Your task to perform on an android device: turn on the 12-hour format for clock Image 0: 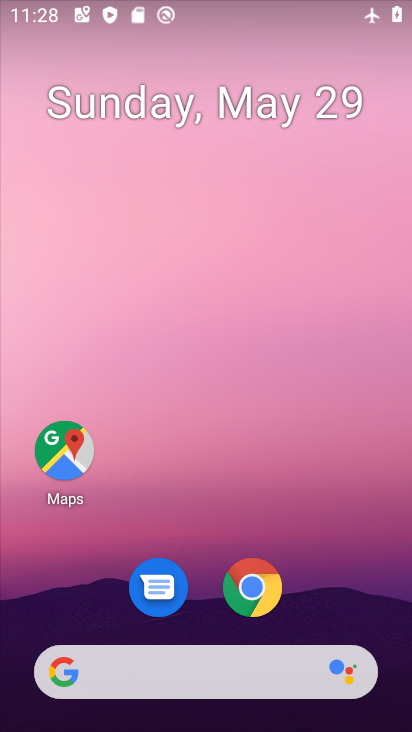
Step 0: drag from (346, 530) to (283, 176)
Your task to perform on an android device: turn on the 12-hour format for clock Image 1: 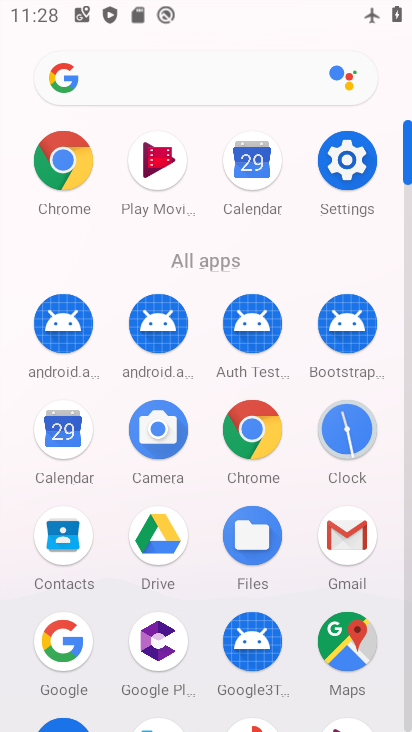
Step 1: click (344, 429)
Your task to perform on an android device: turn on the 12-hour format for clock Image 2: 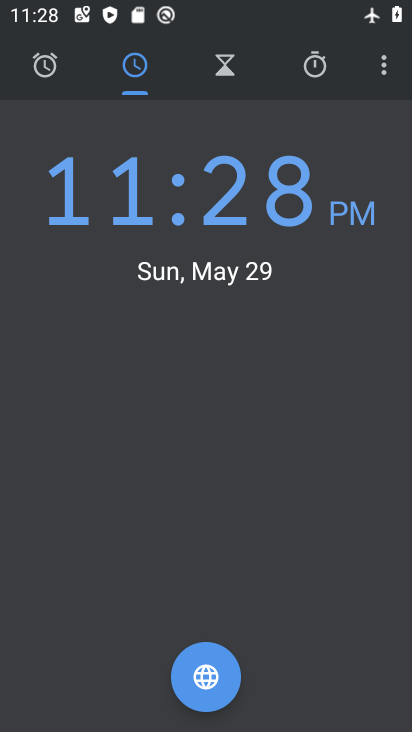
Step 2: click (388, 73)
Your task to perform on an android device: turn on the 12-hour format for clock Image 3: 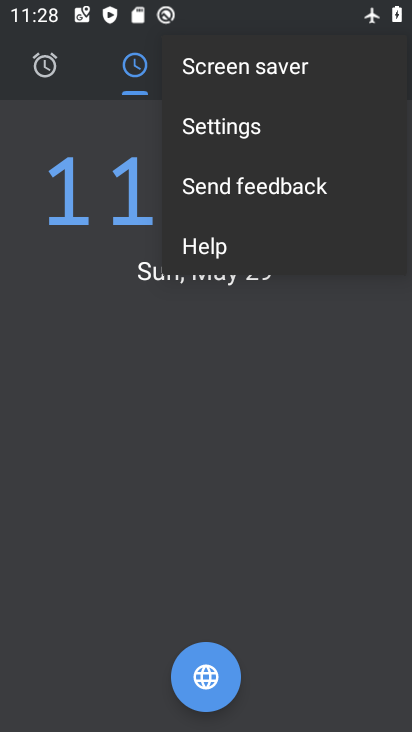
Step 3: click (250, 123)
Your task to perform on an android device: turn on the 12-hour format for clock Image 4: 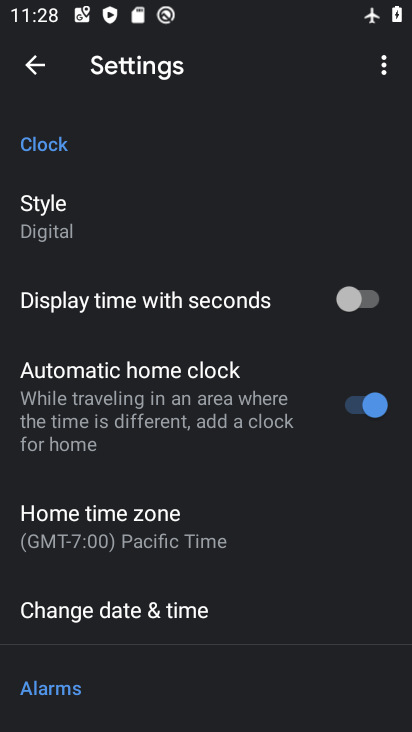
Step 4: click (160, 612)
Your task to perform on an android device: turn on the 12-hour format for clock Image 5: 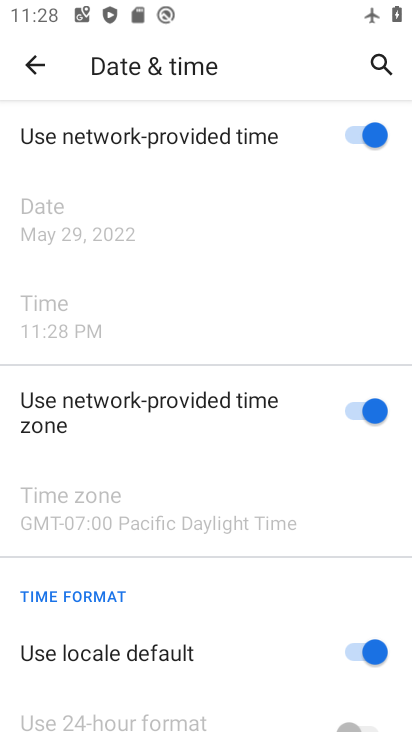
Step 5: task complete